Your task to perform on an android device: View the shopping cart on bestbuy.com. Add asus rog to the cart on bestbuy.com, then select checkout. Image 0: 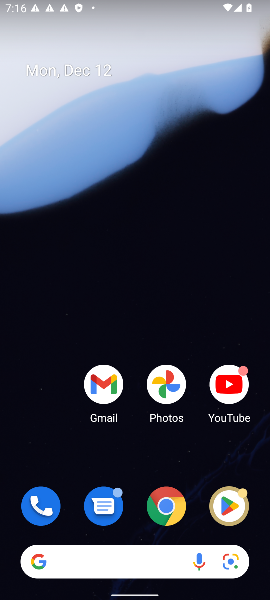
Step 0: click (123, 569)
Your task to perform on an android device: View the shopping cart on bestbuy.com. Add asus rog to the cart on bestbuy.com, then select checkout. Image 1: 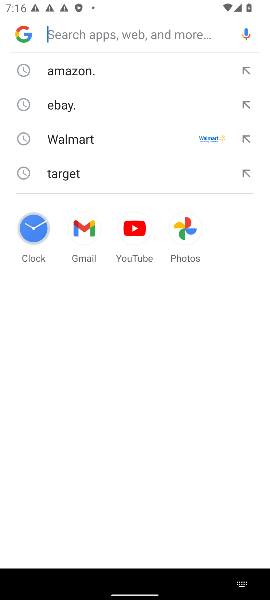
Step 1: type "bestbuy"
Your task to perform on an android device: View the shopping cart on bestbuy.com. Add asus rog to the cart on bestbuy.com, then select checkout. Image 2: 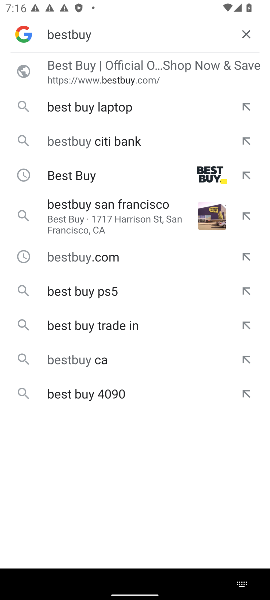
Step 2: click (100, 74)
Your task to perform on an android device: View the shopping cart on bestbuy.com. Add asus rog to the cart on bestbuy.com, then select checkout. Image 3: 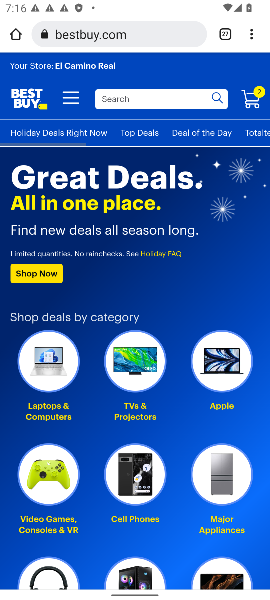
Step 3: click (171, 94)
Your task to perform on an android device: View the shopping cart on bestbuy.com. Add asus rog to the cart on bestbuy.com, then select checkout. Image 4: 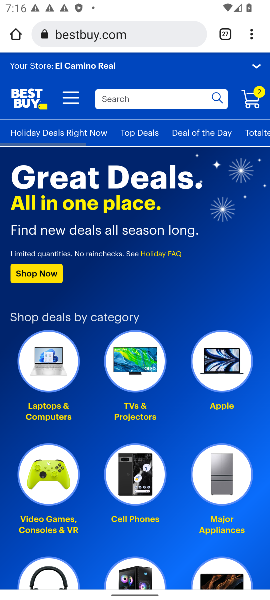
Step 4: type "asus rog"
Your task to perform on an android device: View the shopping cart on bestbuy.com. Add asus rog to the cart on bestbuy.com, then select checkout. Image 5: 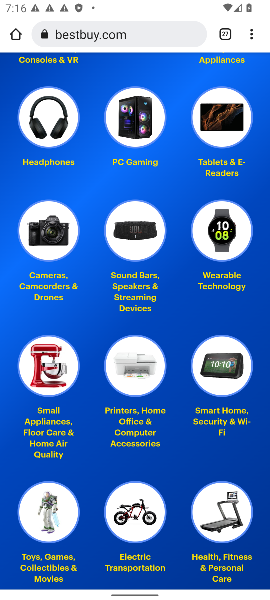
Step 5: drag from (181, 299) to (156, 513)
Your task to perform on an android device: View the shopping cart on bestbuy.com. Add asus rog to the cart on bestbuy.com, then select checkout. Image 6: 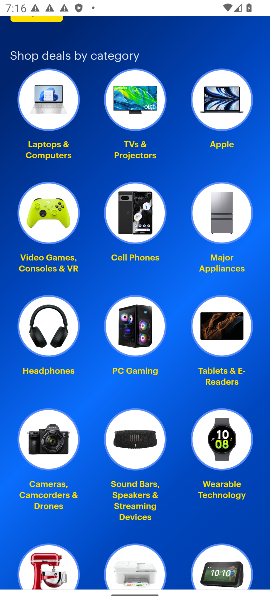
Step 6: drag from (145, 64) to (7, 434)
Your task to perform on an android device: View the shopping cart on bestbuy.com. Add asus rog to the cart on bestbuy.com, then select checkout. Image 7: 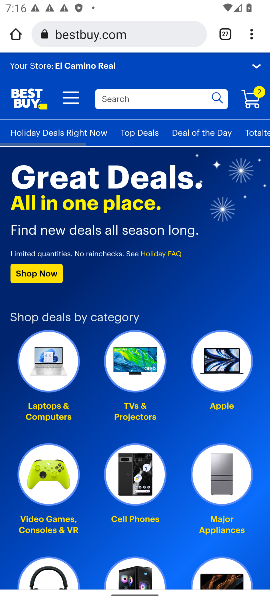
Step 7: click (132, 106)
Your task to perform on an android device: View the shopping cart on bestbuy.com. Add asus rog to the cart on bestbuy.com, then select checkout. Image 8: 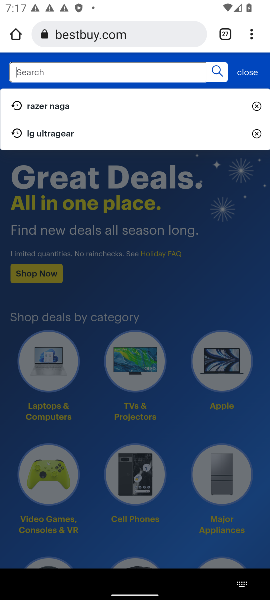
Step 8: type "asus rog"
Your task to perform on an android device: View the shopping cart on bestbuy.com. Add asus rog to the cart on bestbuy.com, then select checkout. Image 9: 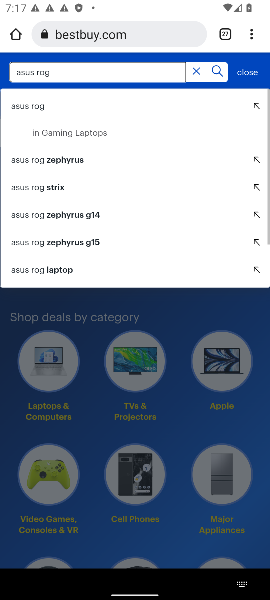
Step 9: click (65, 102)
Your task to perform on an android device: View the shopping cart on bestbuy.com. Add asus rog to the cart on bestbuy.com, then select checkout. Image 10: 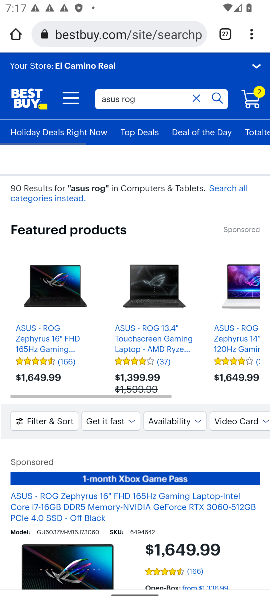
Step 10: drag from (199, 444) to (186, 209)
Your task to perform on an android device: View the shopping cart on bestbuy.com. Add asus rog to the cart on bestbuy.com, then select checkout. Image 11: 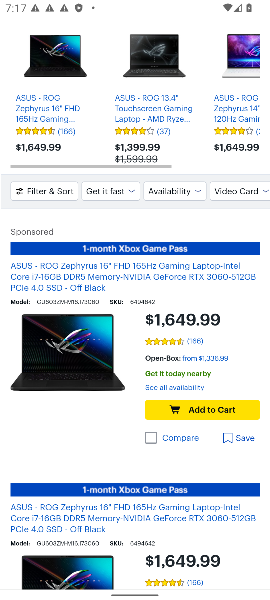
Step 11: click (205, 398)
Your task to perform on an android device: View the shopping cart on bestbuy.com. Add asus rog to the cart on bestbuy.com, then select checkout. Image 12: 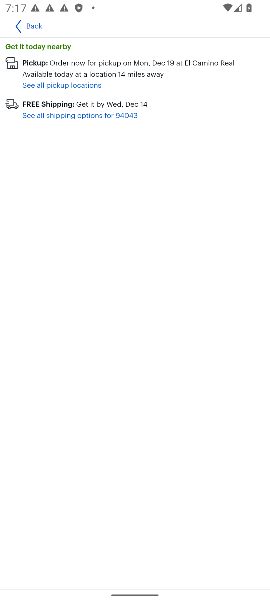
Step 12: click (30, 26)
Your task to perform on an android device: View the shopping cart on bestbuy.com. Add asus rog to the cart on bestbuy.com, then select checkout. Image 13: 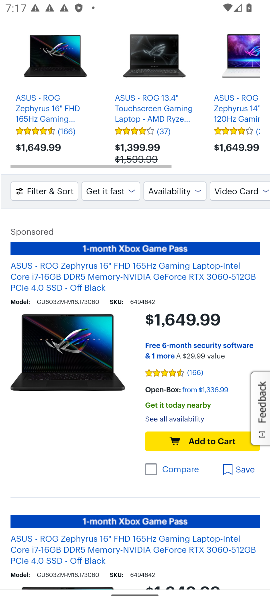
Step 13: click (192, 439)
Your task to perform on an android device: View the shopping cart on bestbuy.com. Add asus rog to the cart on bestbuy.com, then select checkout. Image 14: 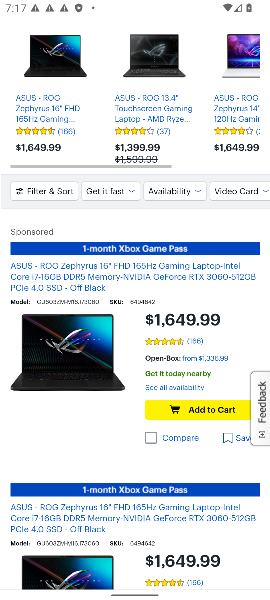
Step 14: task complete